Your task to perform on an android device: Go to ESPN.com Image 0: 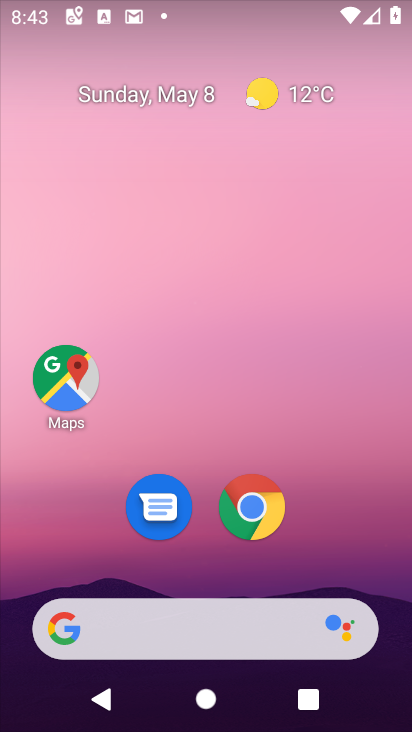
Step 0: click (185, 640)
Your task to perform on an android device: Go to ESPN.com Image 1: 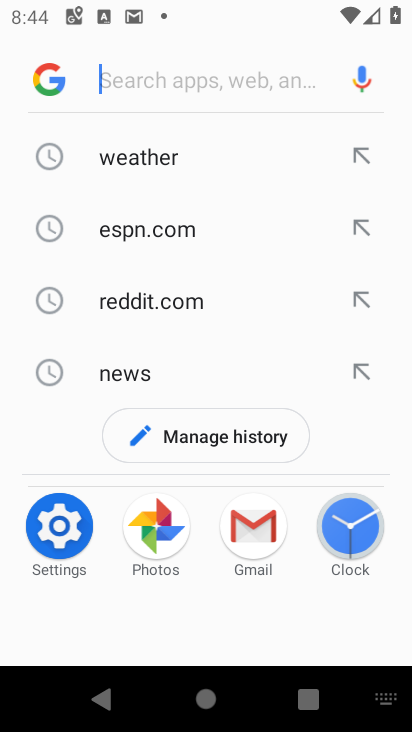
Step 1: type "espn.c"
Your task to perform on an android device: Go to ESPN.com Image 2: 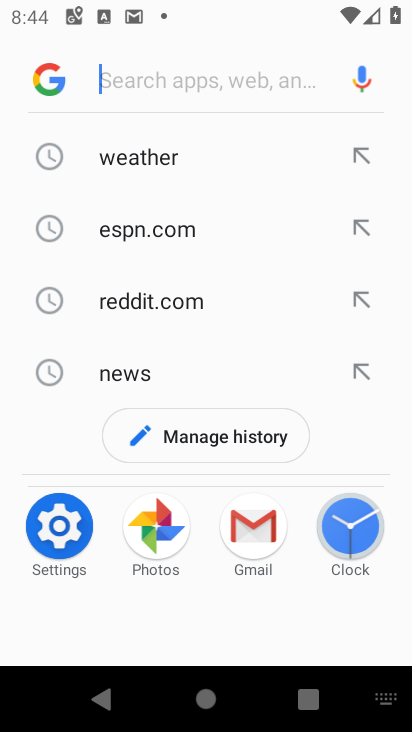
Step 2: click (193, 242)
Your task to perform on an android device: Go to ESPN.com Image 3: 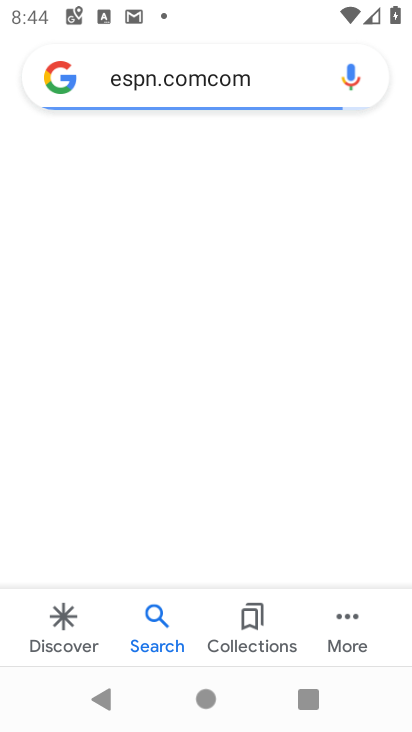
Step 3: click (211, 163)
Your task to perform on an android device: Go to ESPN.com Image 4: 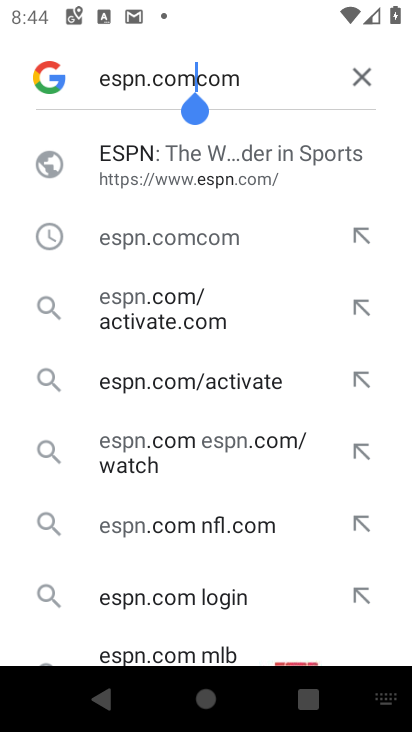
Step 4: click (271, 327)
Your task to perform on an android device: Go to ESPN.com Image 5: 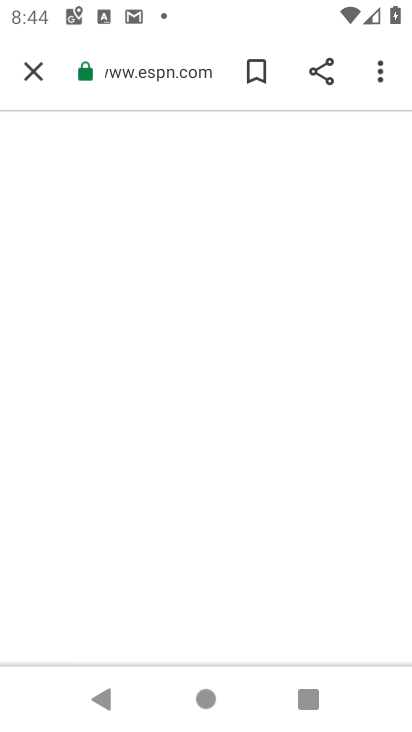
Step 5: task complete